Your task to perform on an android device: turn on sleep mode Image 0: 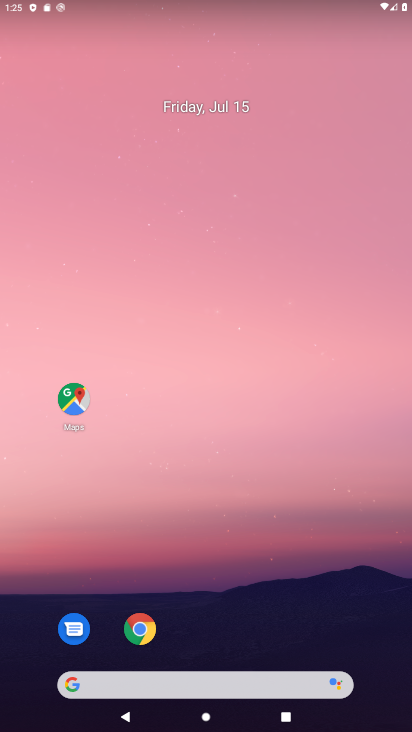
Step 0: drag from (150, 663) to (306, 94)
Your task to perform on an android device: turn on sleep mode Image 1: 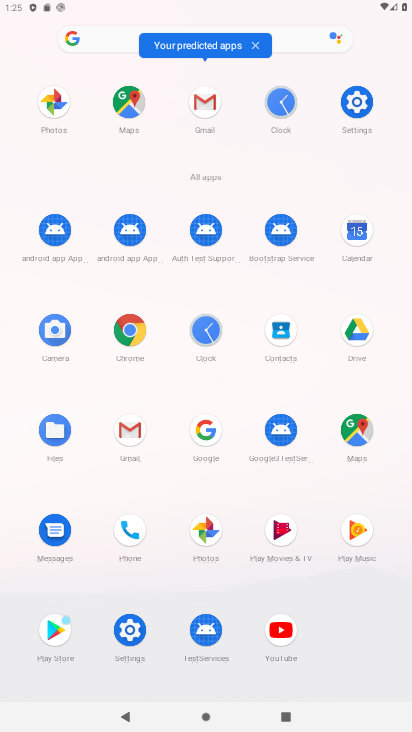
Step 1: click (354, 94)
Your task to perform on an android device: turn on sleep mode Image 2: 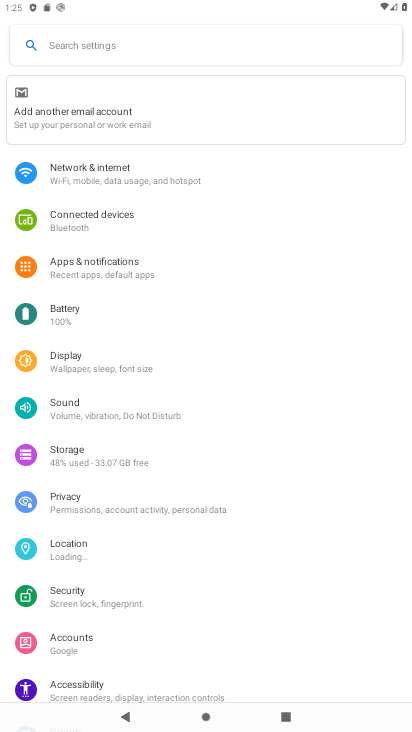
Step 2: click (67, 370)
Your task to perform on an android device: turn on sleep mode Image 3: 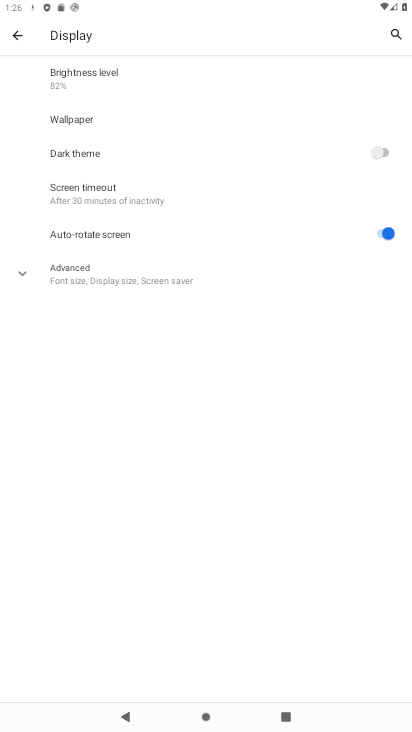
Step 3: task complete